Your task to perform on an android device: open app "Move to iOS" (install if not already installed) Image 0: 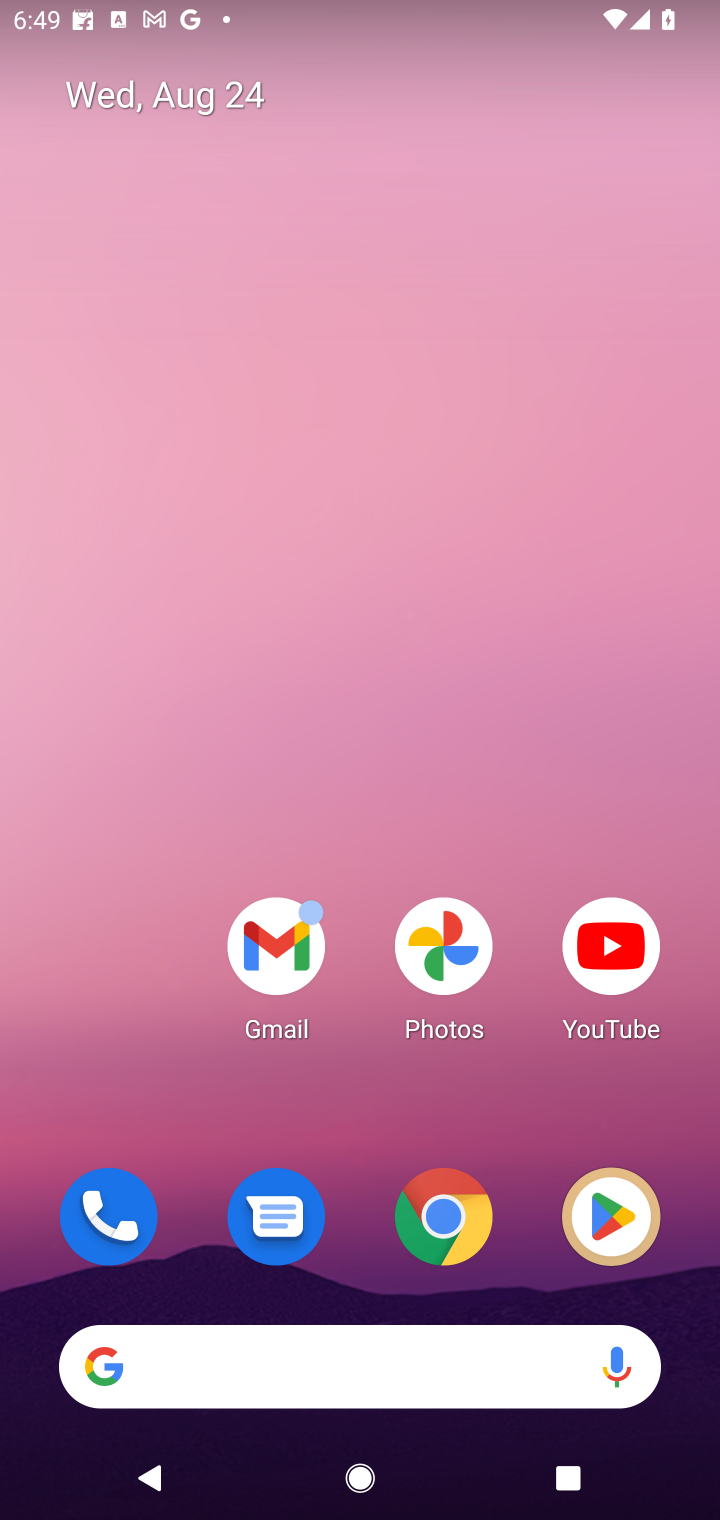
Step 0: click (629, 1224)
Your task to perform on an android device: open app "Move to iOS" (install if not already installed) Image 1: 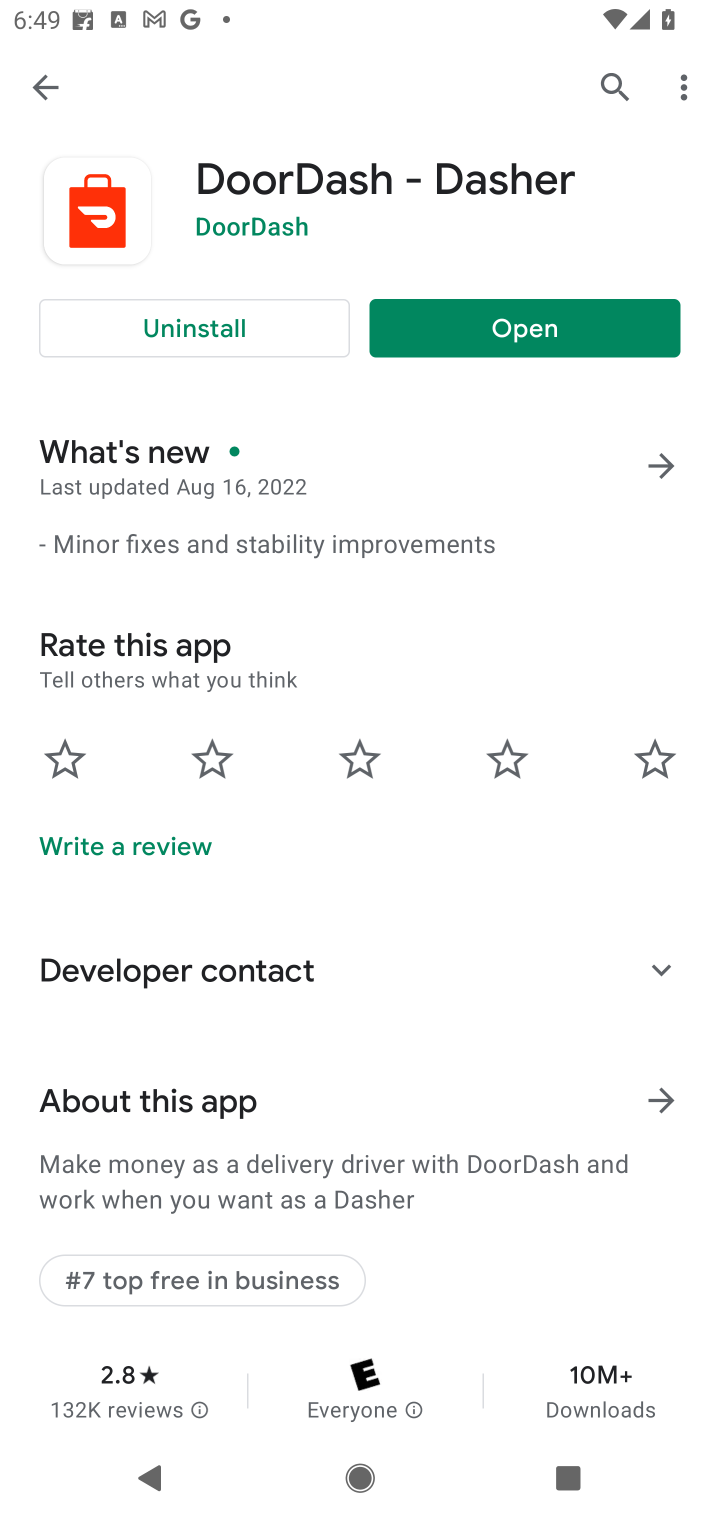
Step 1: click (611, 89)
Your task to perform on an android device: open app "Move to iOS" (install if not already installed) Image 2: 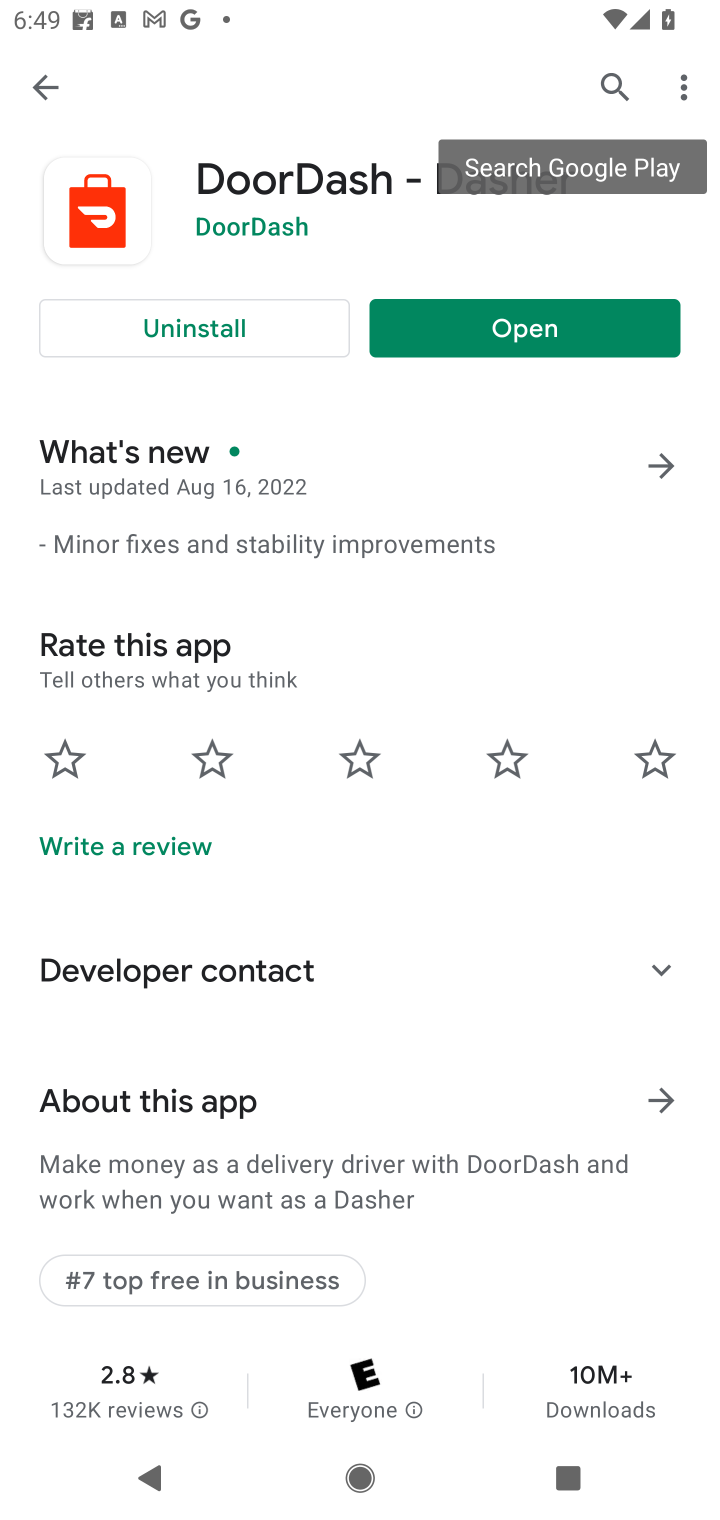
Step 2: click (613, 79)
Your task to perform on an android device: open app "Move to iOS" (install if not already installed) Image 3: 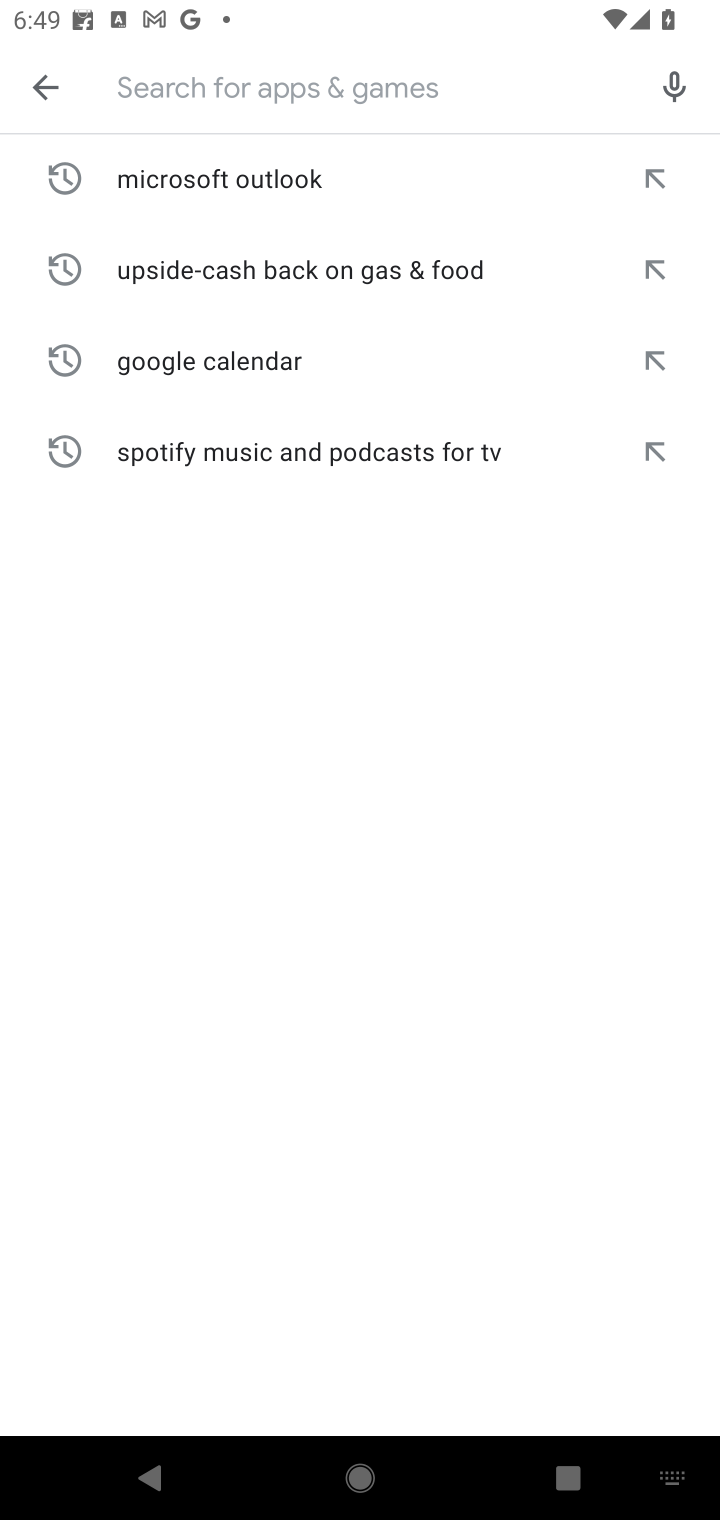
Step 3: type "Move to iOS"
Your task to perform on an android device: open app "Move to iOS" (install if not already installed) Image 4: 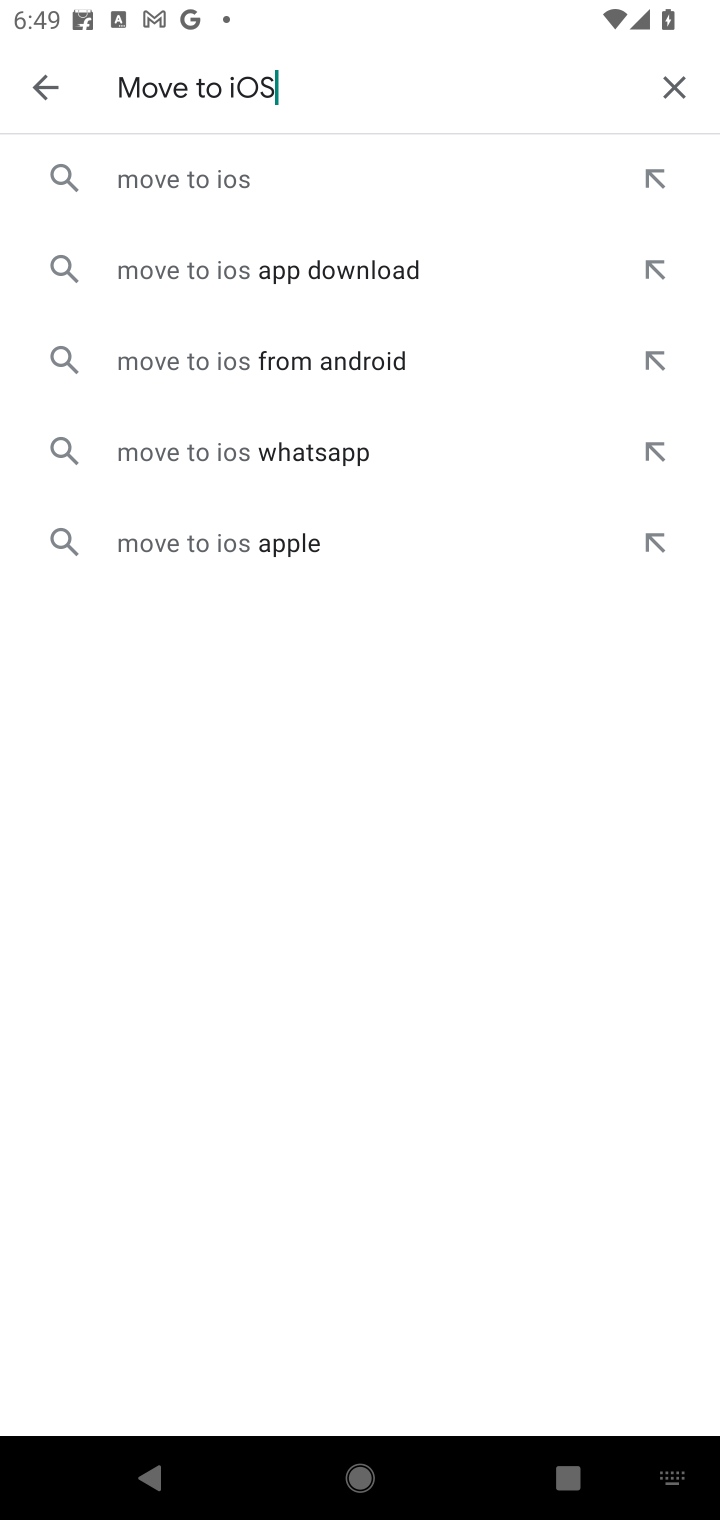
Step 4: click (209, 173)
Your task to perform on an android device: open app "Move to iOS" (install if not already installed) Image 5: 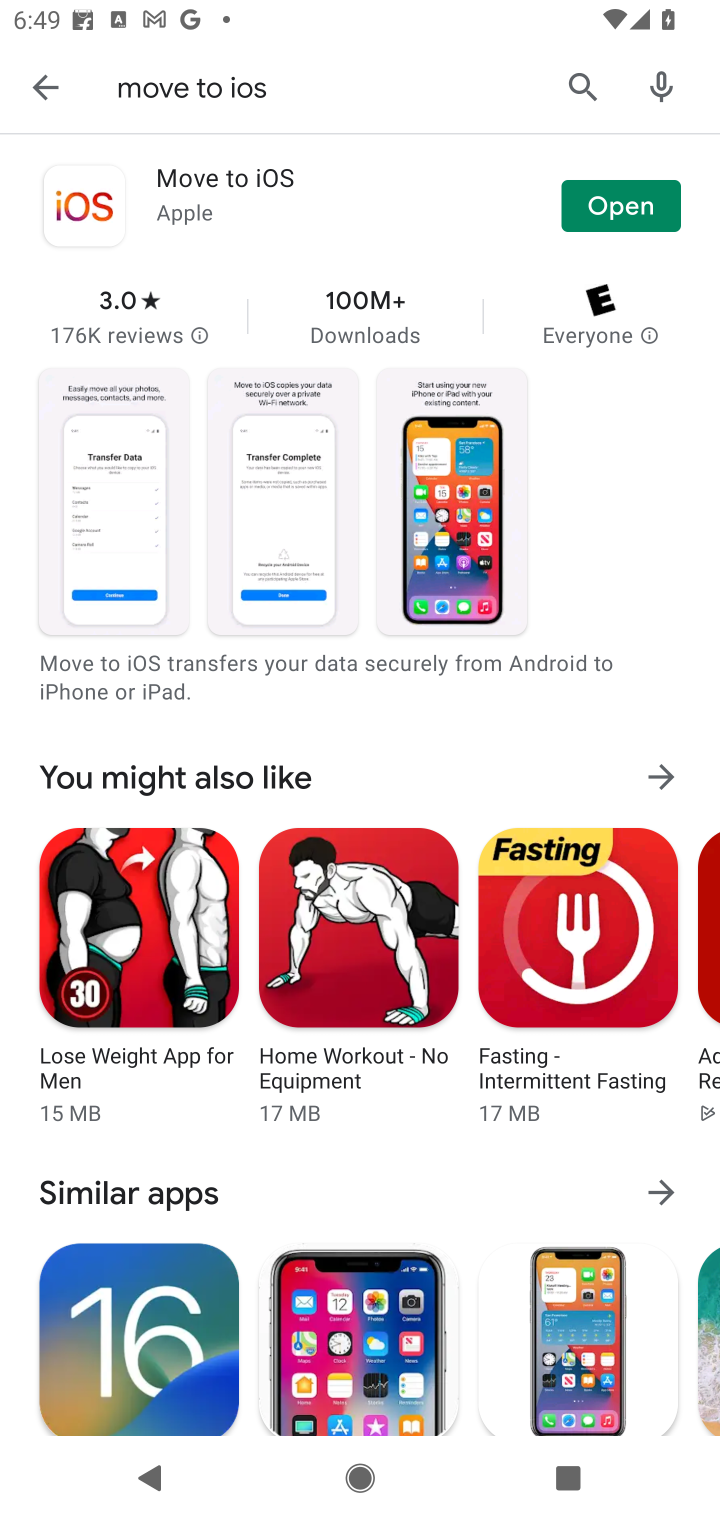
Step 5: click (607, 201)
Your task to perform on an android device: open app "Move to iOS" (install if not already installed) Image 6: 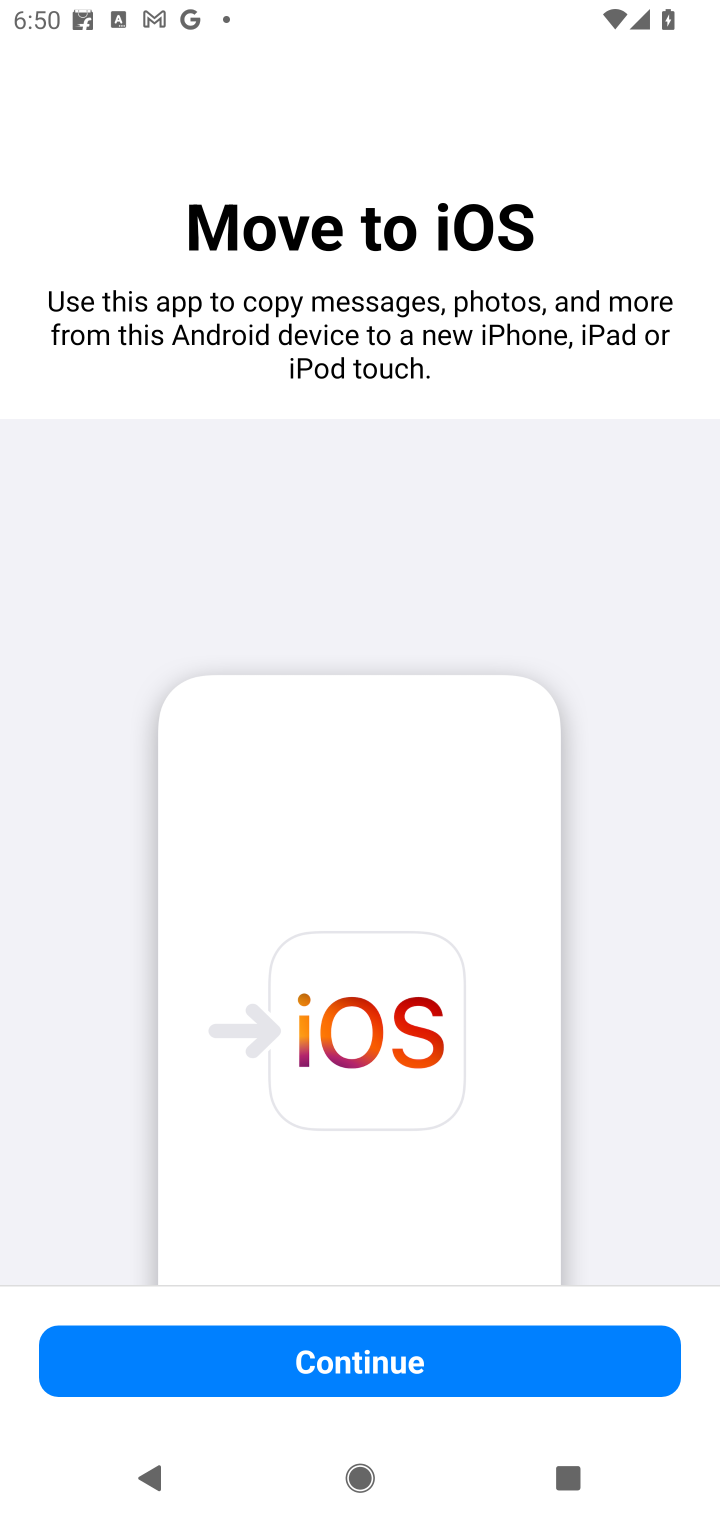
Step 6: task complete